Your task to perform on an android device: turn on bluetooth scan Image 0: 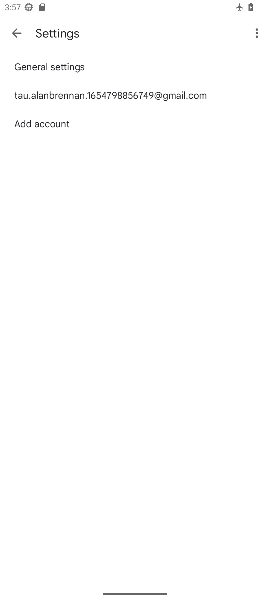
Step 0: press home button
Your task to perform on an android device: turn on bluetooth scan Image 1: 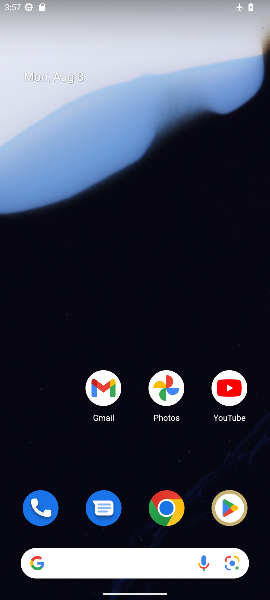
Step 1: drag from (131, 474) to (106, 55)
Your task to perform on an android device: turn on bluetooth scan Image 2: 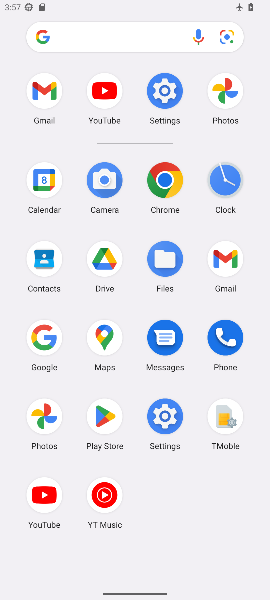
Step 2: click (161, 86)
Your task to perform on an android device: turn on bluetooth scan Image 3: 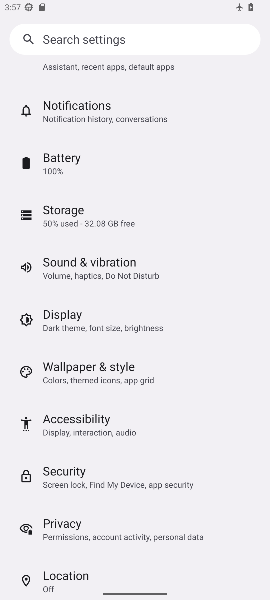
Step 3: drag from (146, 504) to (133, 183)
Your task to perform on an android device: turn on bluetooth scan Image 4: 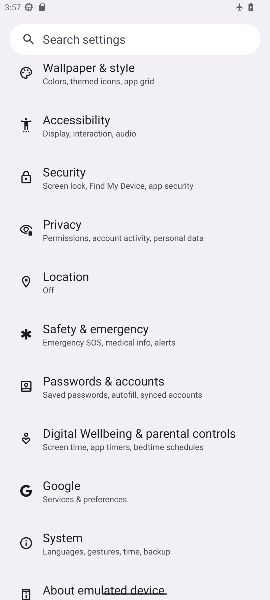
Step 4: click (68, 280)
Your task to perform on an android device: turn on bluetooth scan Image 5: 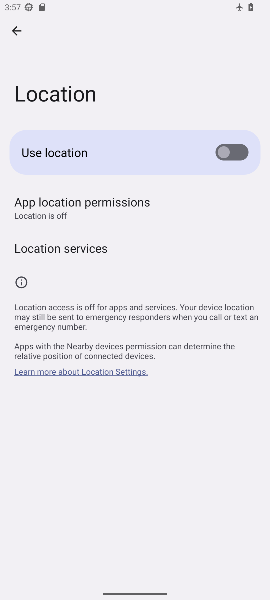
Step 5: click (62, 205)
Your task to perform on an android device: turn on bluetooth scan Image 6: 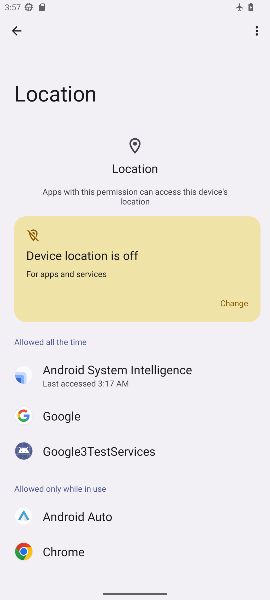
Step 6: click (18, 31)
Your task to perform on an android device: turn on bluetooth scan Image 7: 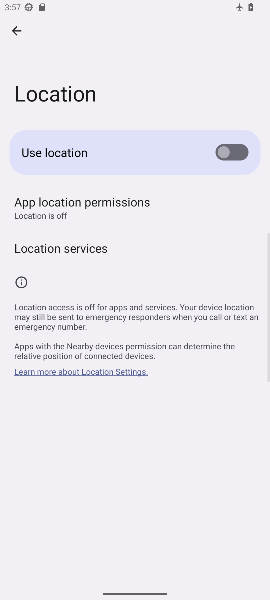
Step 7: click (84, 246)
Your task to perform on an android device: turn on bluetooth scan Image 8: 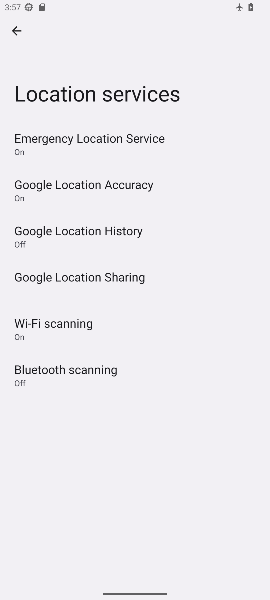
Step 8: click (95, 367)
Your task to perform on an android device: turn on bluetooth scan Image 9: 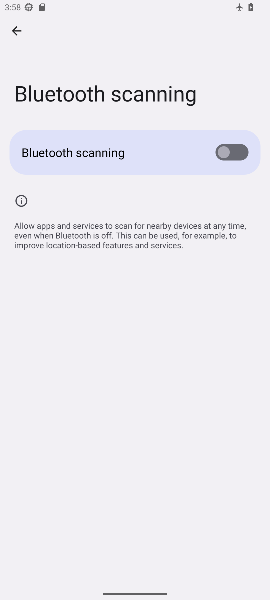
Step 9: click (228, 154)
Your task to perform on an android device: turn on bluetooth scan Image 10: 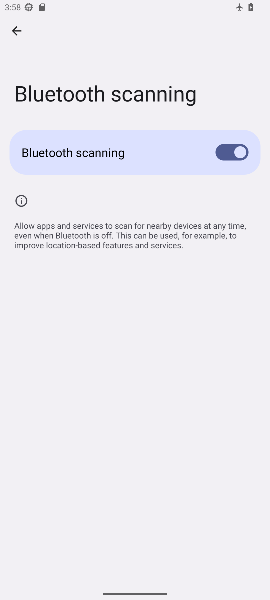
Step 10: task complete